Your task to perform on an android device: stop showing notifications on the lock screen Image 0: 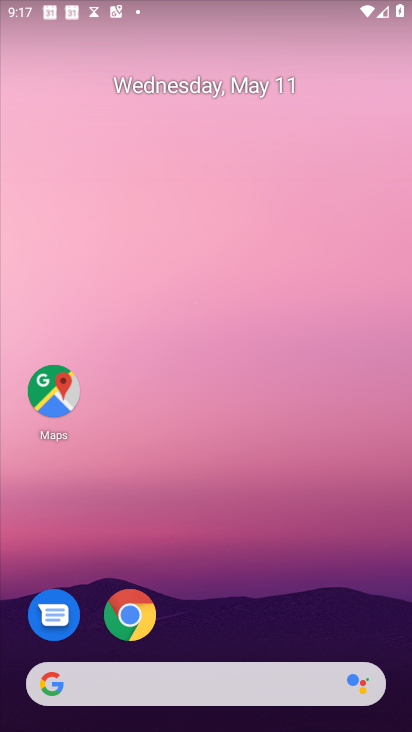
Step 0: press home button
Your task to perform on an android device: stop showing notifications on the lock screen Image 1: 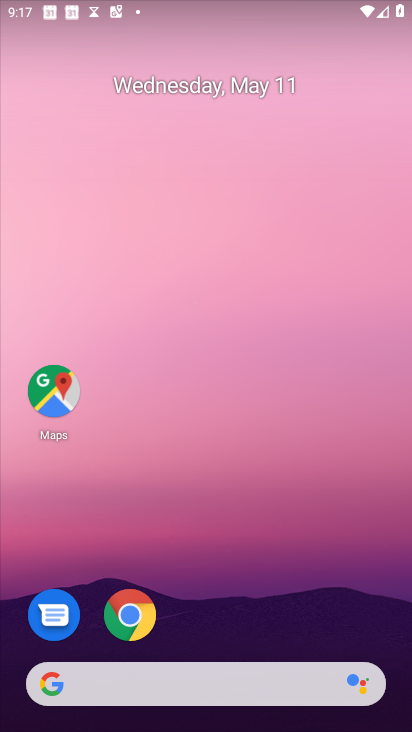
Step 1: drag from (27, 600) to (336, 129)
Your task to perform on an android device: stop showing notifications on the lock screen Image 2: 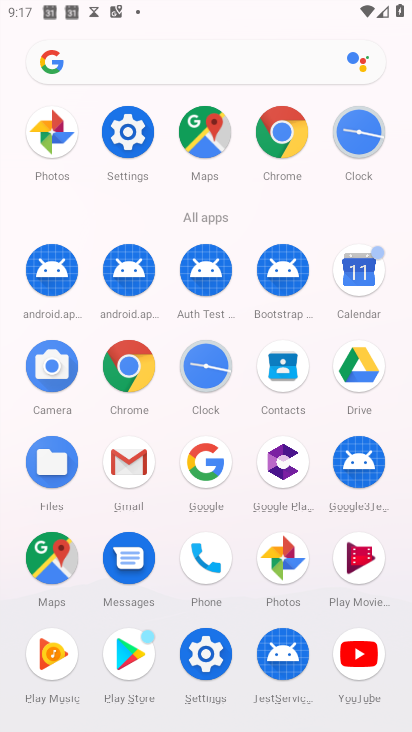
Step 2: click (187, 650)
Your task to perform on an android device: stop showing notifications on the lock screen Image 3: 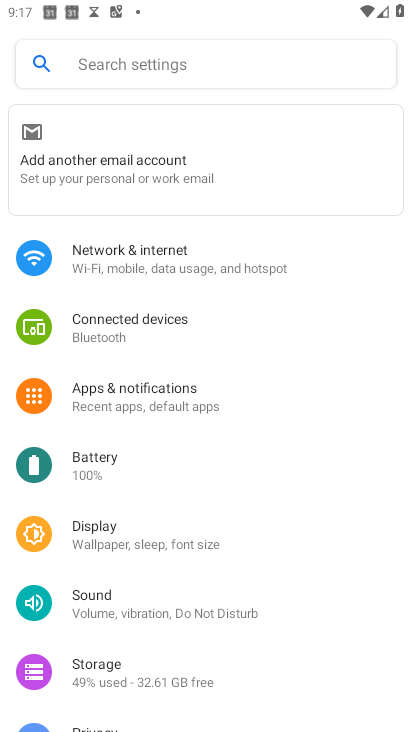
Step 3: click (92, 397)
Your task to perform on an android device: stop showing notifications on the lock screen Image 4: 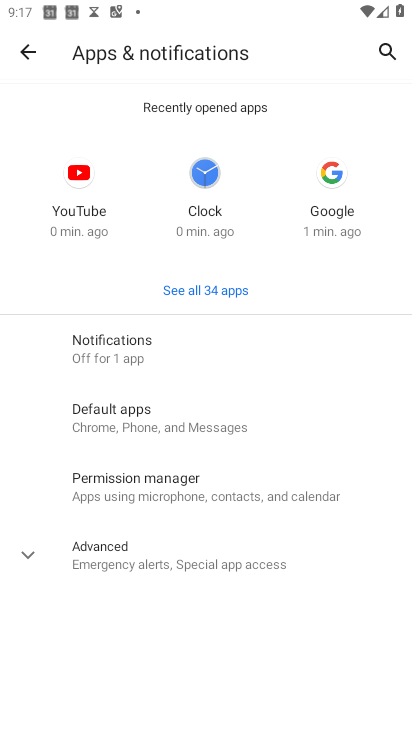
Step 4: click (102, 355)
Your task to perform on an android device: stop showing notifications on the lock screen Image 5: 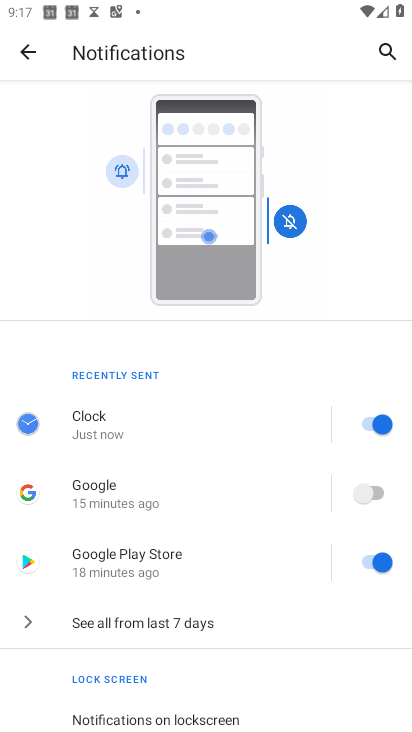
Step 5: click (137, 715)
Your task to perform on an android device: stop showing notifications on the lock screen Image 6: 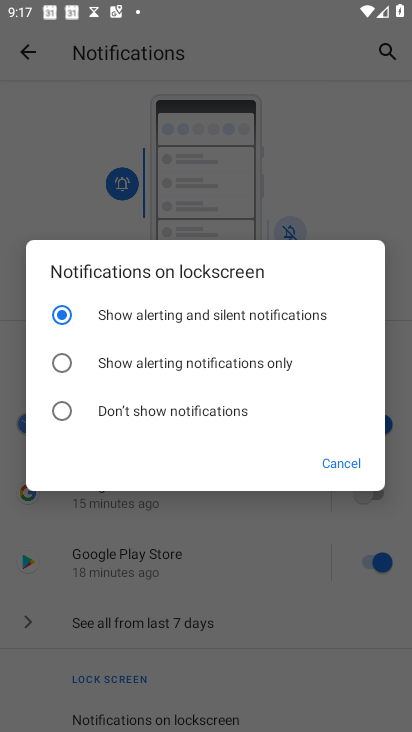
Step 6: click (150, 418)
Your task to perform on an android device: stop showing notifications on the lock screen Image 7: 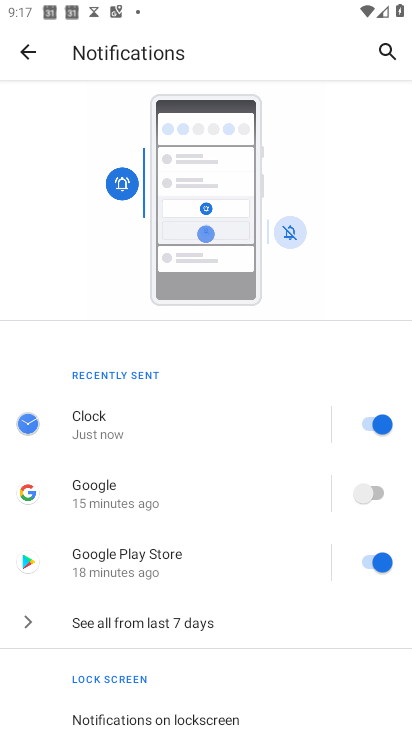
Step 7: task complete